Your task to perform on an android device: Clear the shopping cart on bestbuy.com. Search for razer thresher on bestbuy.com, select the first entry, and add it to the cart. Image 0: 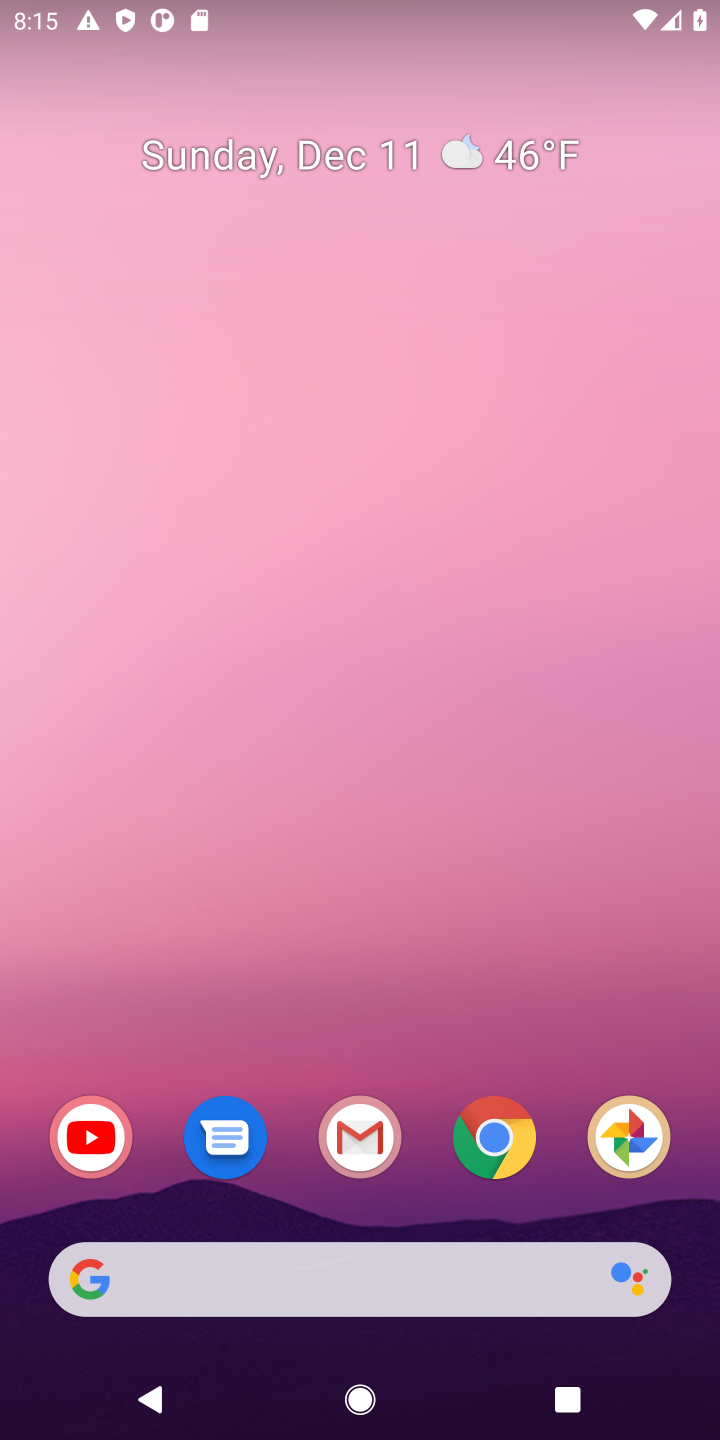
Step 0: click (479, 1148)
Your task to perform on an android device: Clear the shopping cart on bestbuy.com. Search for razer thresher on bestbuy.com, select the first entry, and add it to the cart. Image 1: 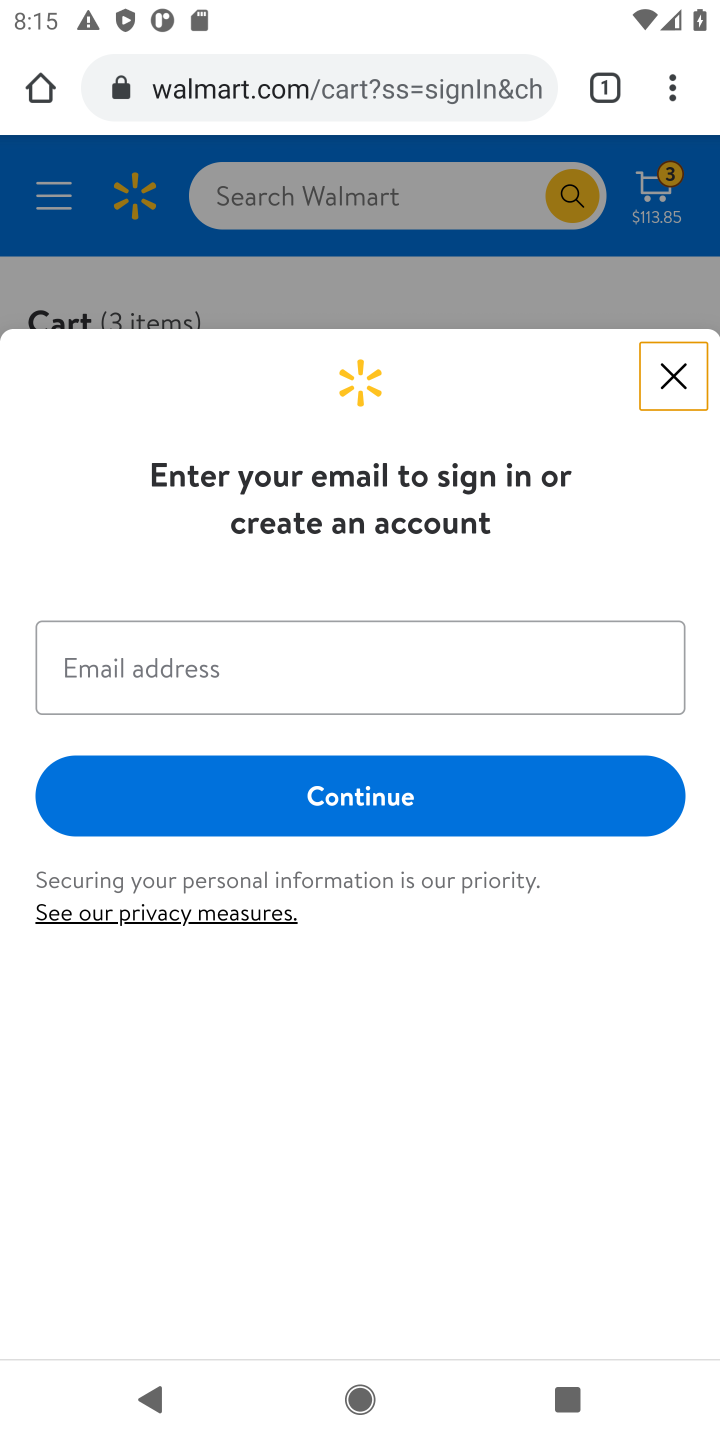
Step 1: click (667, 371)
Your task to perform on an android device: Clear the shopping cart on bestbuy.com. Search for razer thresher on bestbuy.com, select the first entry, and add it to the cart. Image 2: 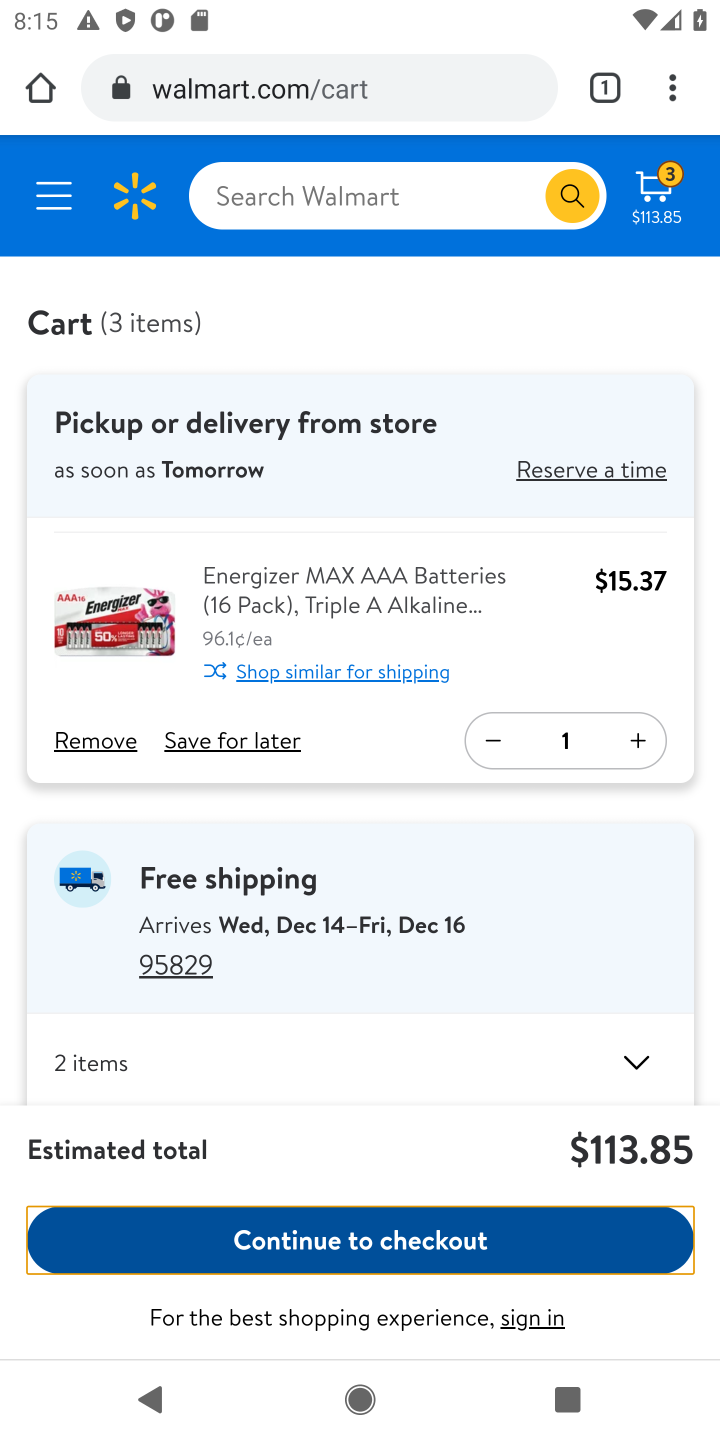
Step 2: click (309, 89)
Your task to perform on an android device: Clear the shopping cart on bestbuy.com. Search for razer thresher on bestbuy.com, select the first entry, and add it to the cart. Image 3: 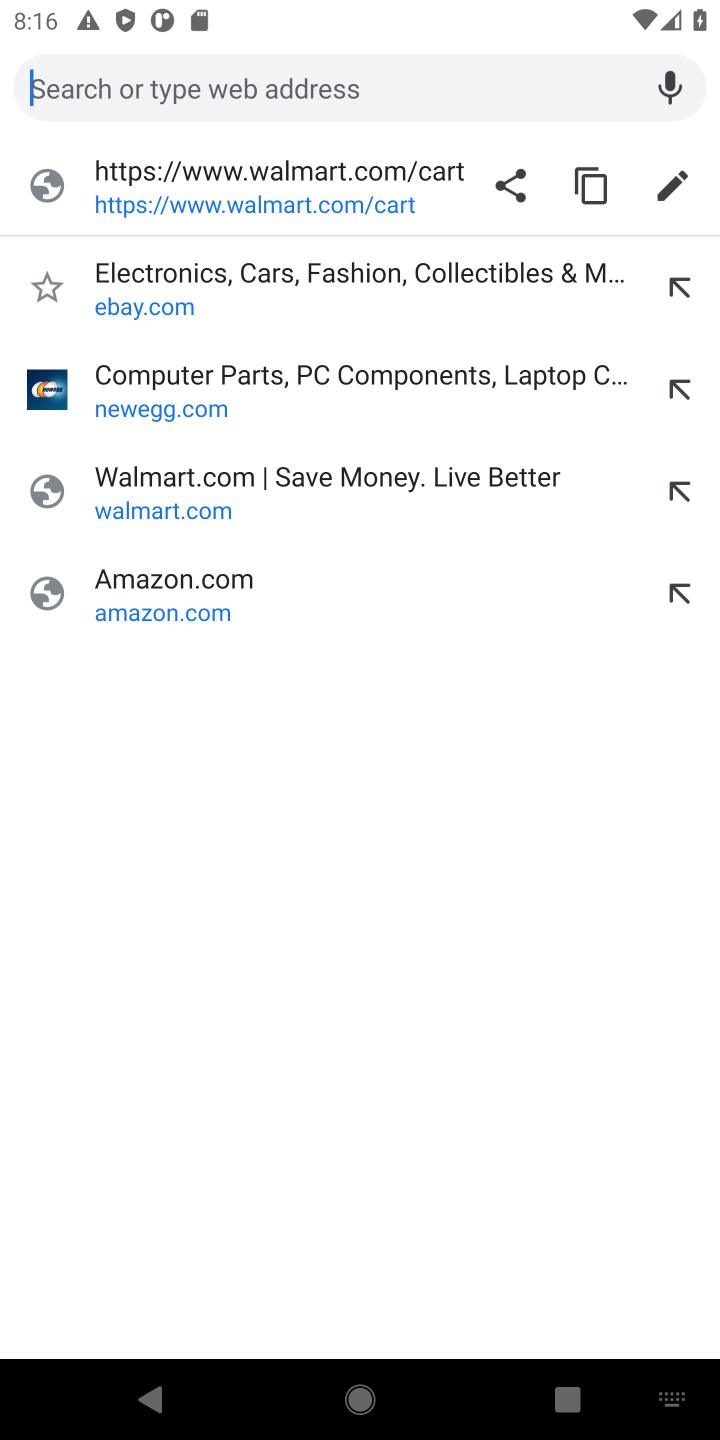
Step 3: type "BESTBUY"
Your task to perform on an android device: Clear the shopping cart on bestbuy.com. Search for razer thresher on bestbuy.com, select the first entry, and add it to the cart. Image 4: 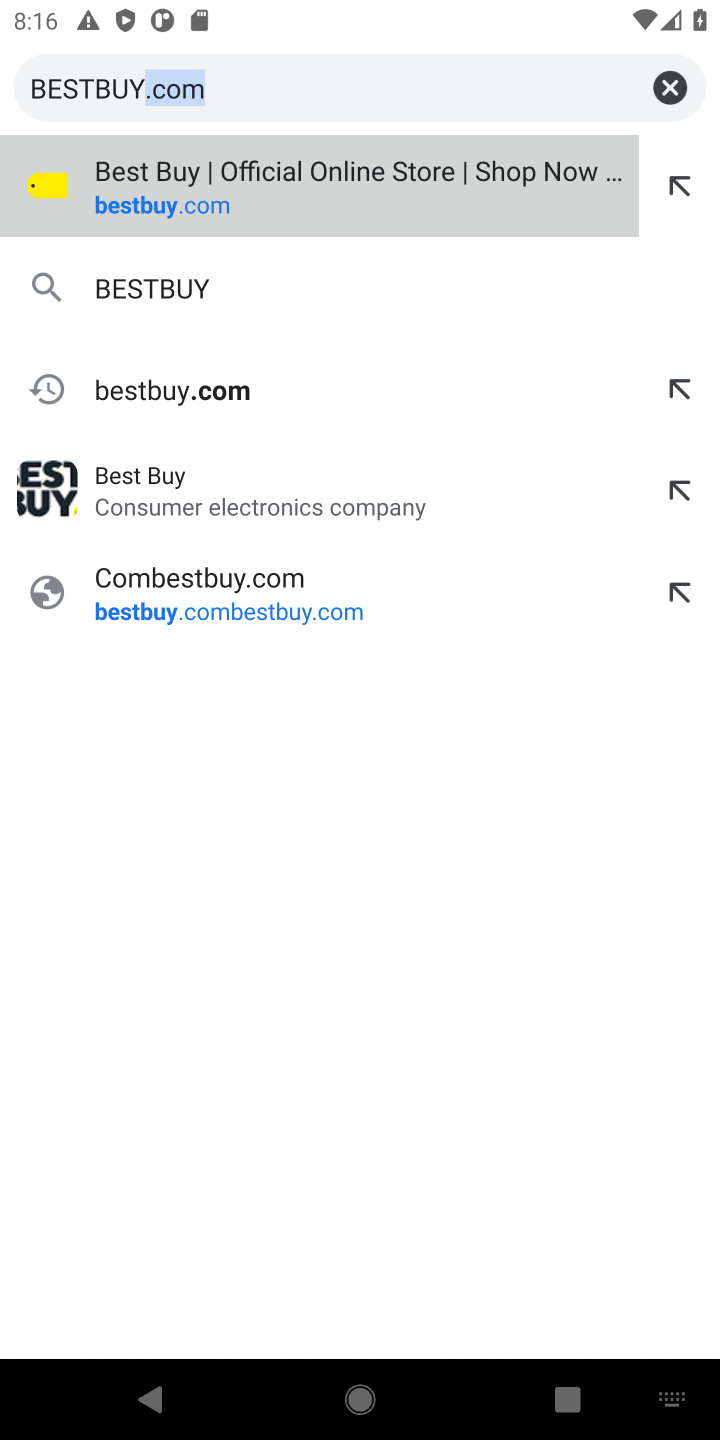
Step 4: click (339, 181)
Your task to perform on an android device: Clear the shopping cart on bestbuy.com. Search for razer thresher on bestbuy.com, select the first entry, and add it to the cart. Image 5: 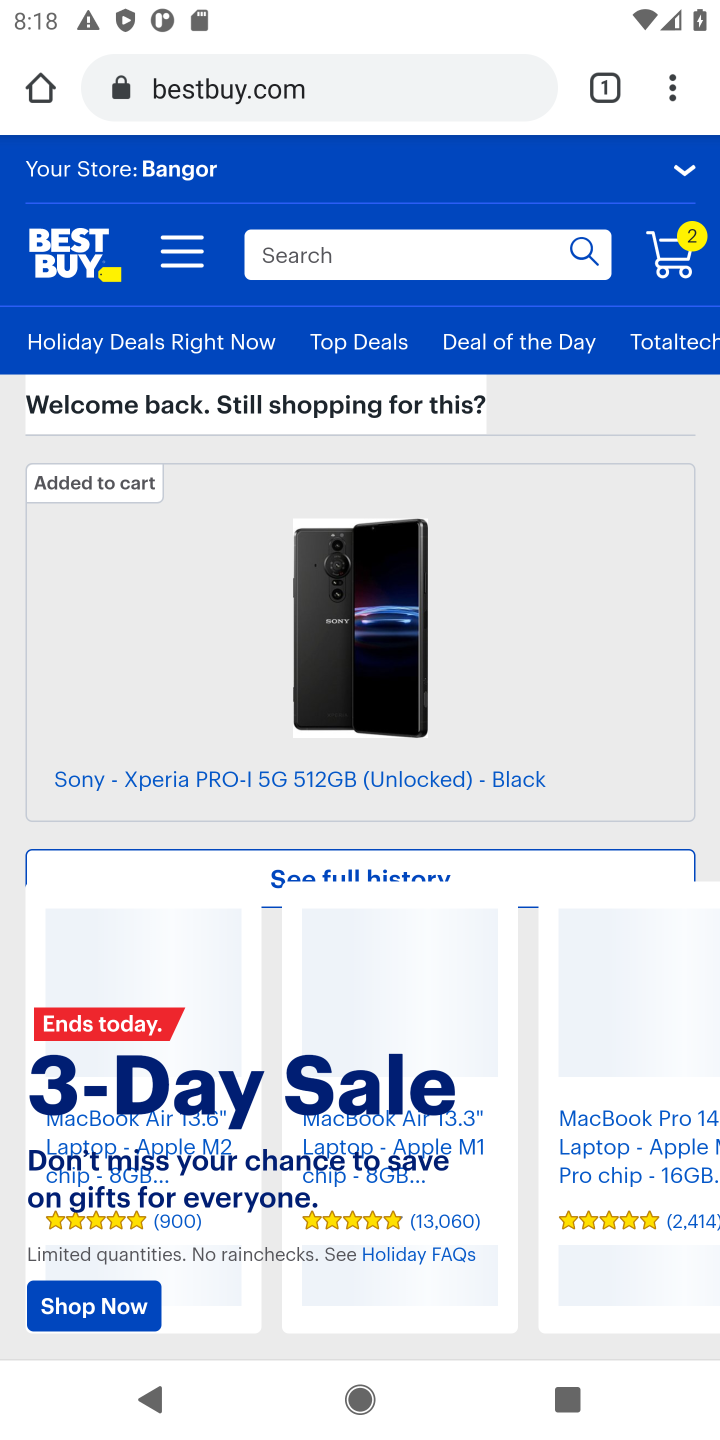
Step 5: click (669, 258)
Your task to perform on an android device: Clear the shopping cart on bestbuy.com. Search for razer thresher on bestbuy.com, select the first entry, and add it to the cart. Image 6: 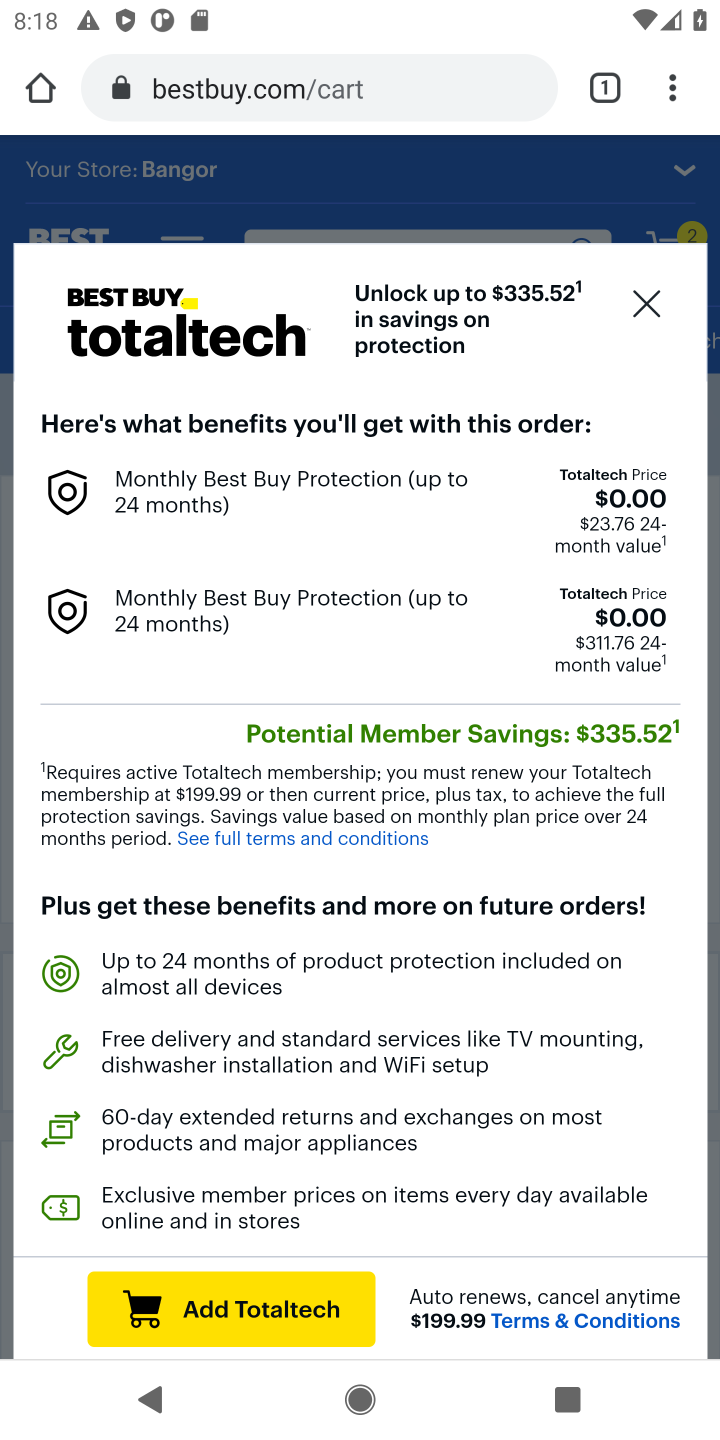
Step 6: click (652, 297)
Your task to perform on an android device: Clear the shopping cart on bestbuy.com. Search for razer thresher on bestbuy.com, select the first entry, and add it to the cart. Image 7: 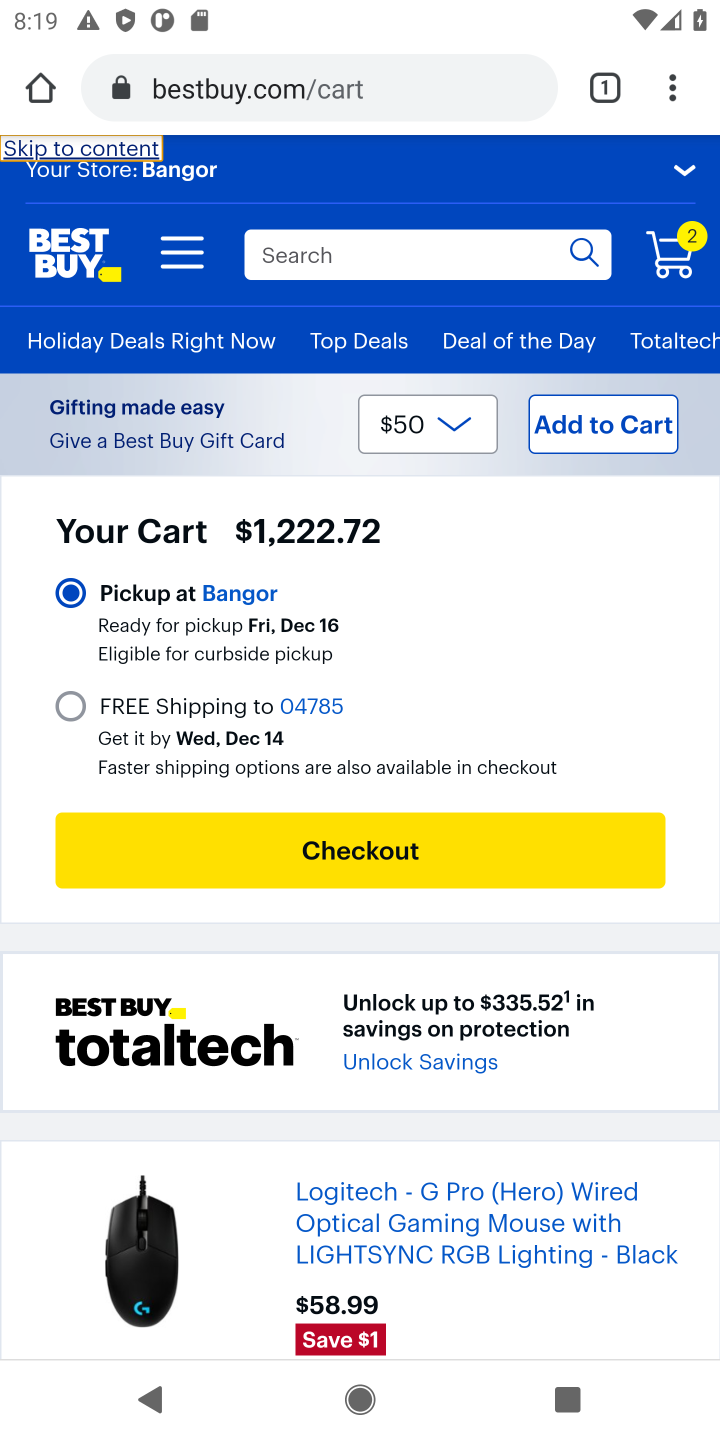
Step 7: drag from (556, 1245) to (483, 309)
Your task to perform on an android device: Clear the shopping cart on bestbuy.com. Search for razer thresher on bestbuy.com, select the first entry, and add it to the cart. Image 8: 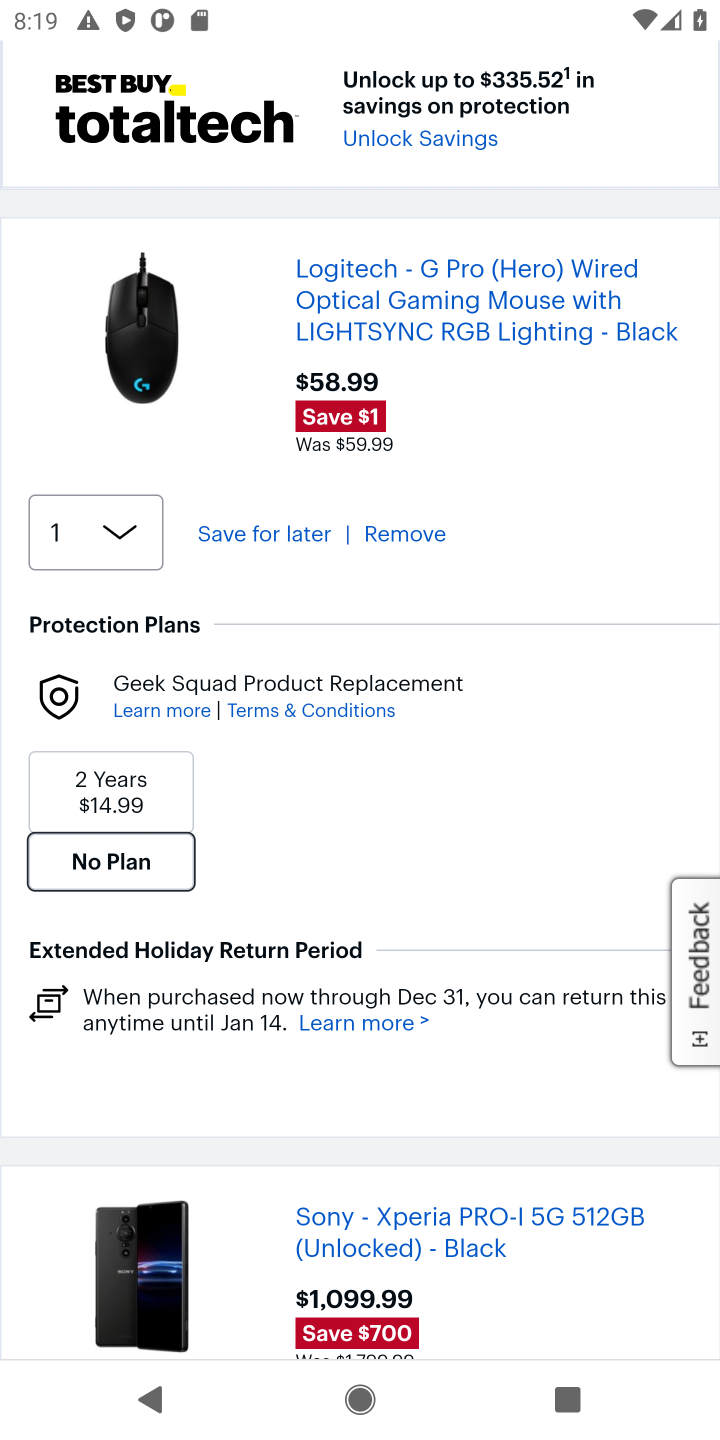
Step 8: click (390, 537)
Your task to perform on an android device: Clear the shopping cart on bestbuy.com. Search for razer thresher on bestbuy.com, select the first entry, and add it to the cart. Image 9: 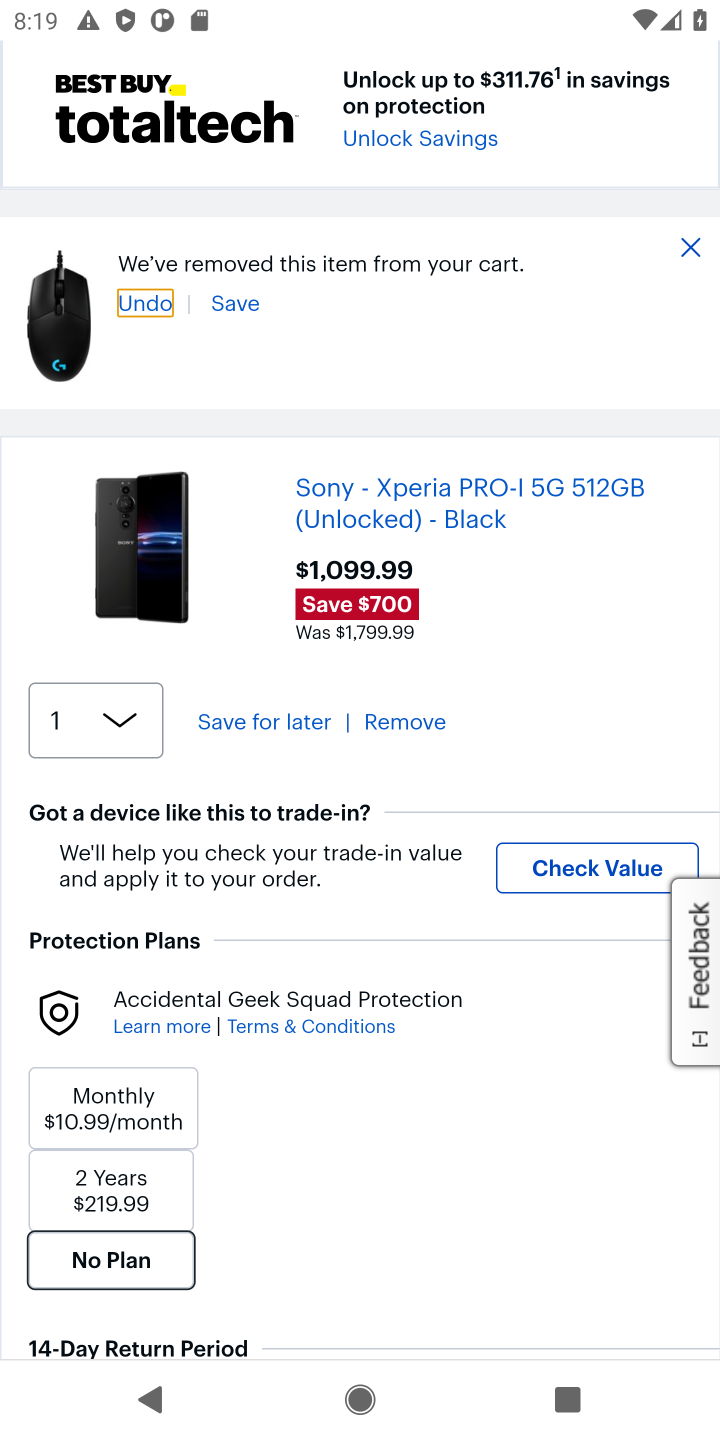
Step 9: click (411, 720)
Your task to perform on an android device: Clear the shopping cart on bestbuy.com. Search for razer thresher on bestbuy.com, select the first entry, and add it to the cart. Image 10: 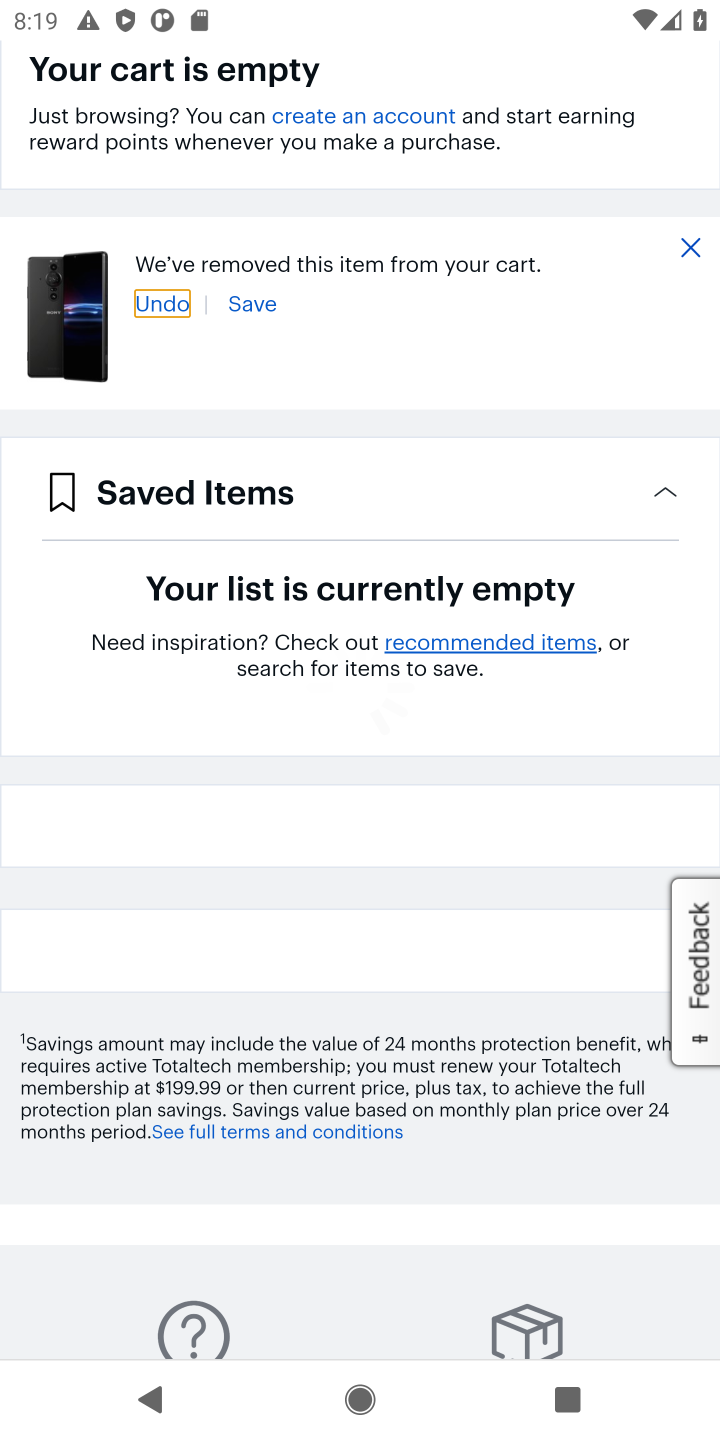
Step 10: drag from (485, 204) to (446, 1278)
Your task to perform on an android device: Clear the shopping cart on bestbuy.com. Search for razer thresher on bestbuy.com, select the first entry, and add it to the cart. Image 11: 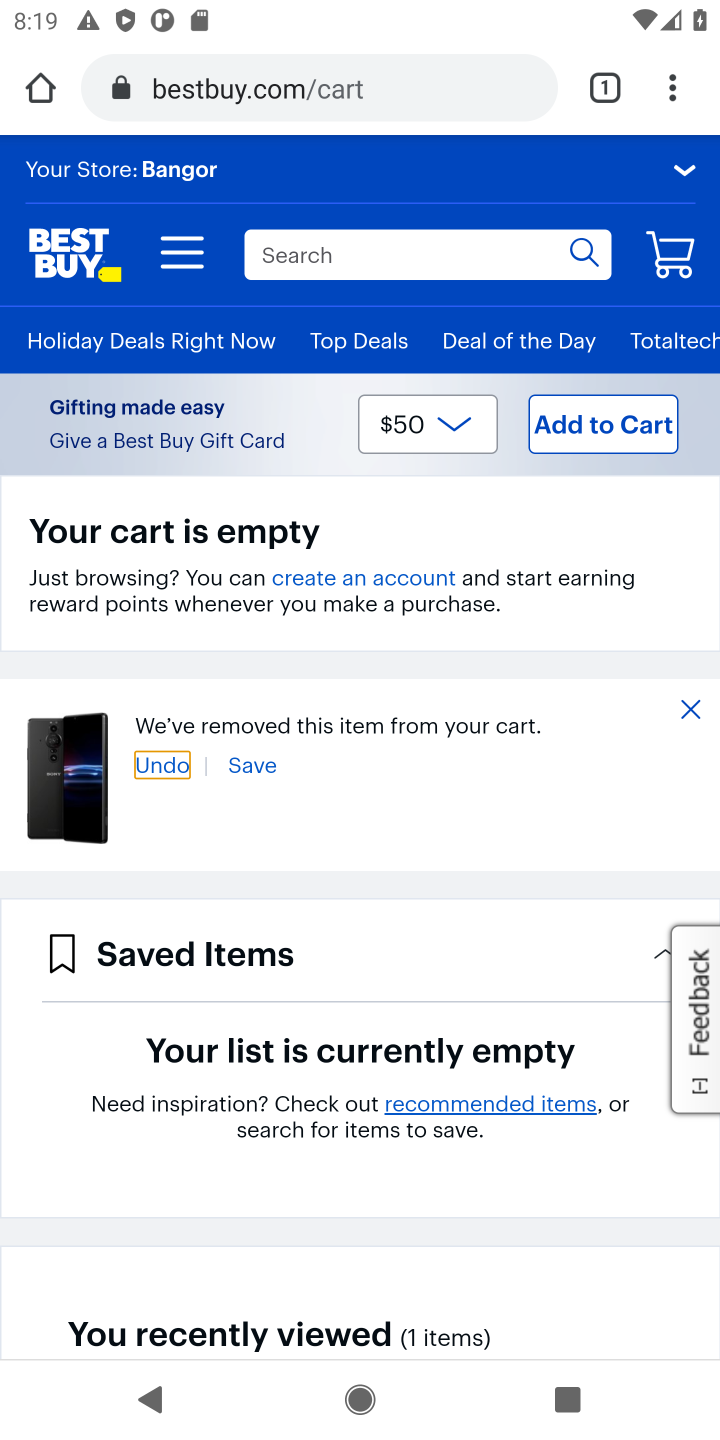
Step 11: click (367, 247)
Your task to perform on an android device: Clear the shopping cart on bestbuy.com. Search for razer thresher on bestbuy.com, select the first entry, and add it to the cart. Image 12: 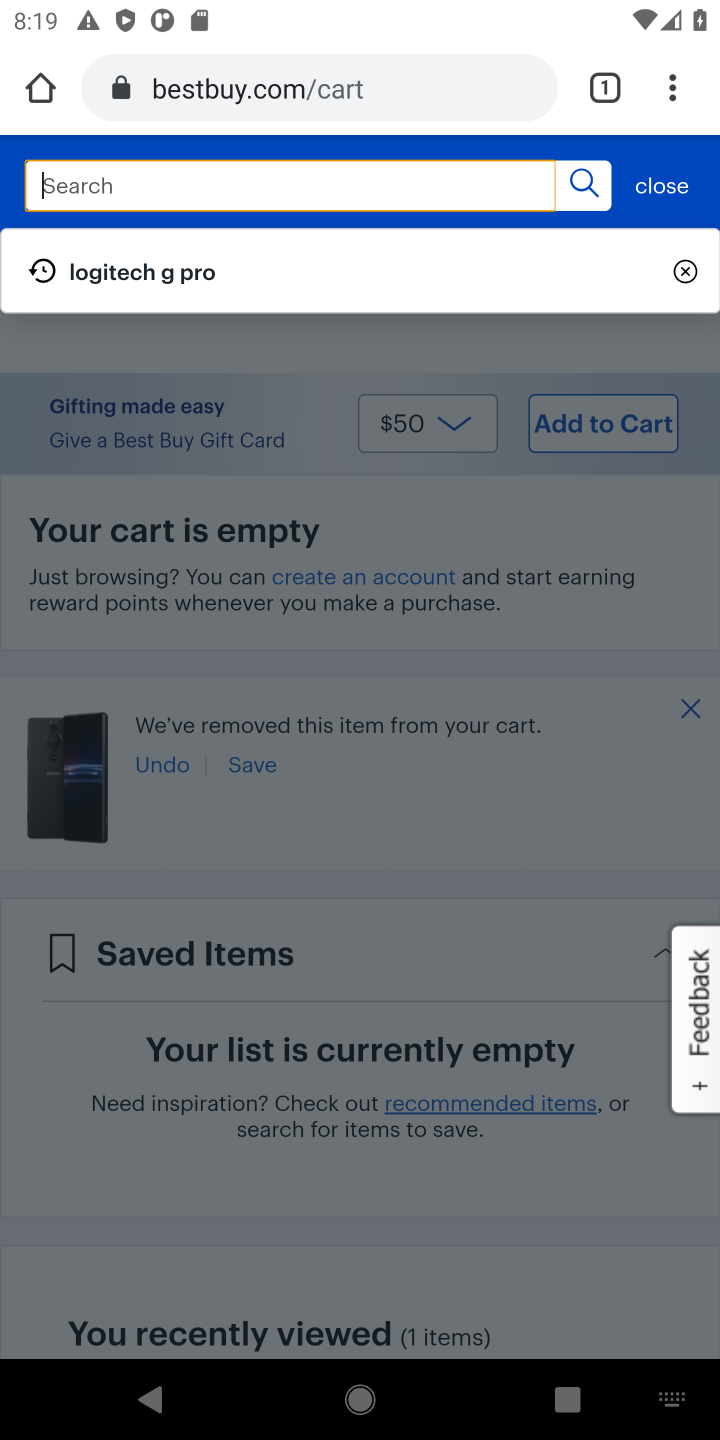
Step 12: type "razer thresher"
Your task to perform on an android device: Clear the shopping cart on bestbuy.com. Search for razer thresher on bestbuy.com, select the first entry, and add it to the cart. Image 13: 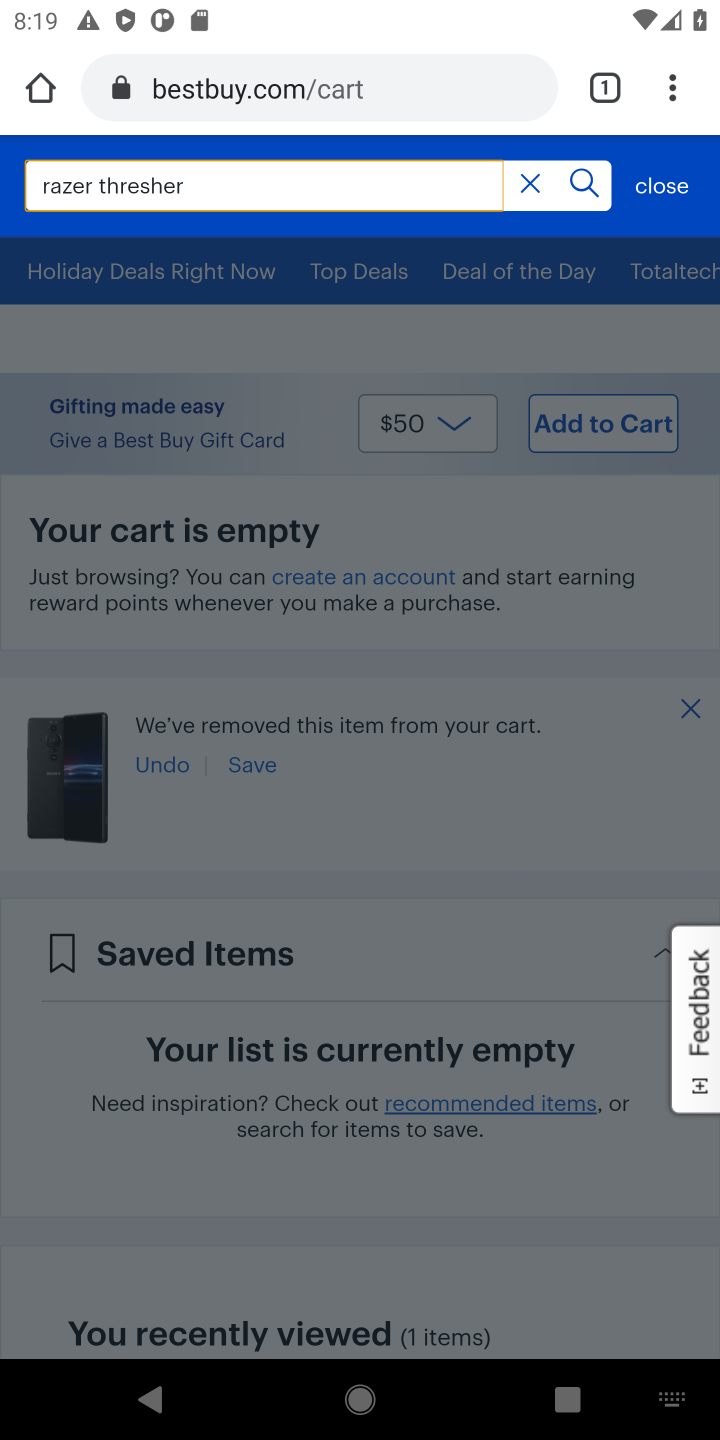
Step 13: click (580, 191)
Your task to perform on an android device: Clear the shopping cart on bestbuy.com. Search for razer thresher on bestbuy.com, select the first entry, and add it to the cart. Image 14: 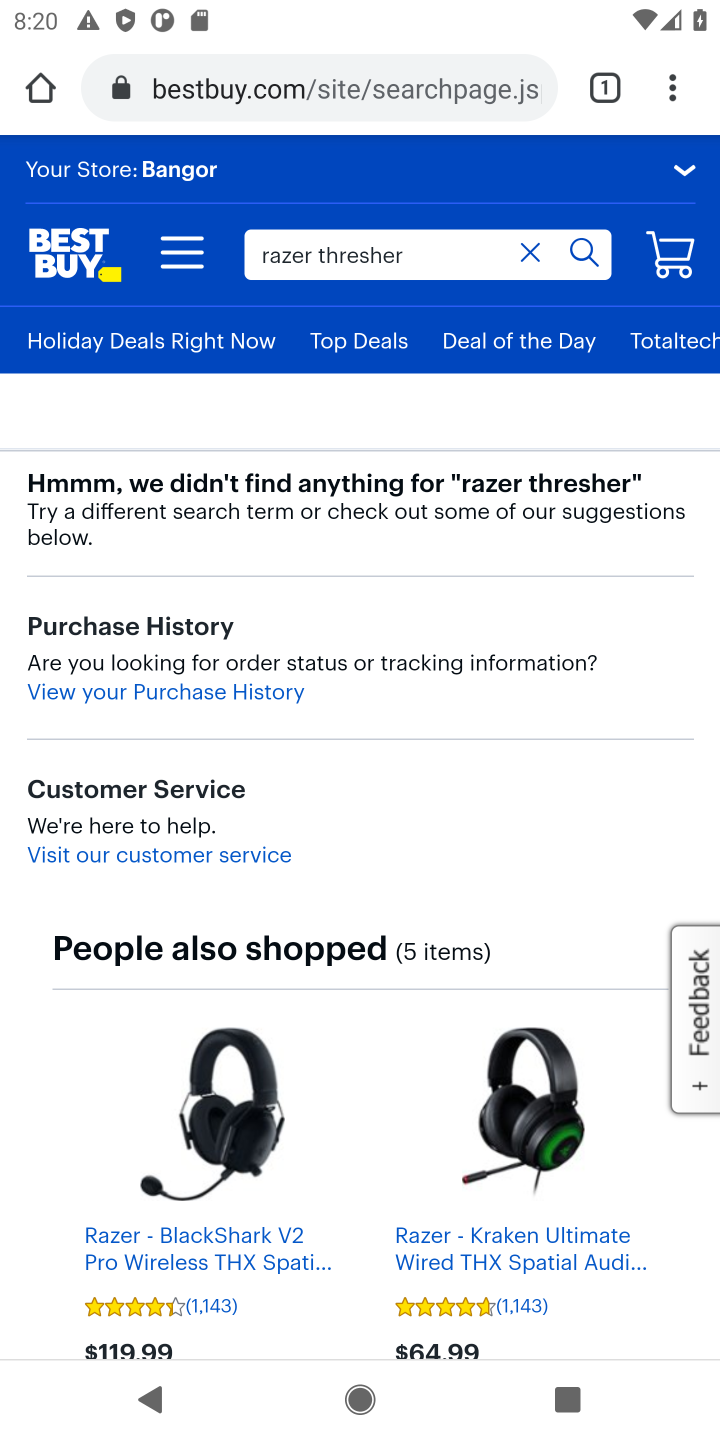
Step 14: click (586, 255)
Your task to perform on an android device: Clear the shopping cart on bestbuy.com. Search for razer thresher on bestbuy.com, select the first entry, and add it to the cart. Image 15: 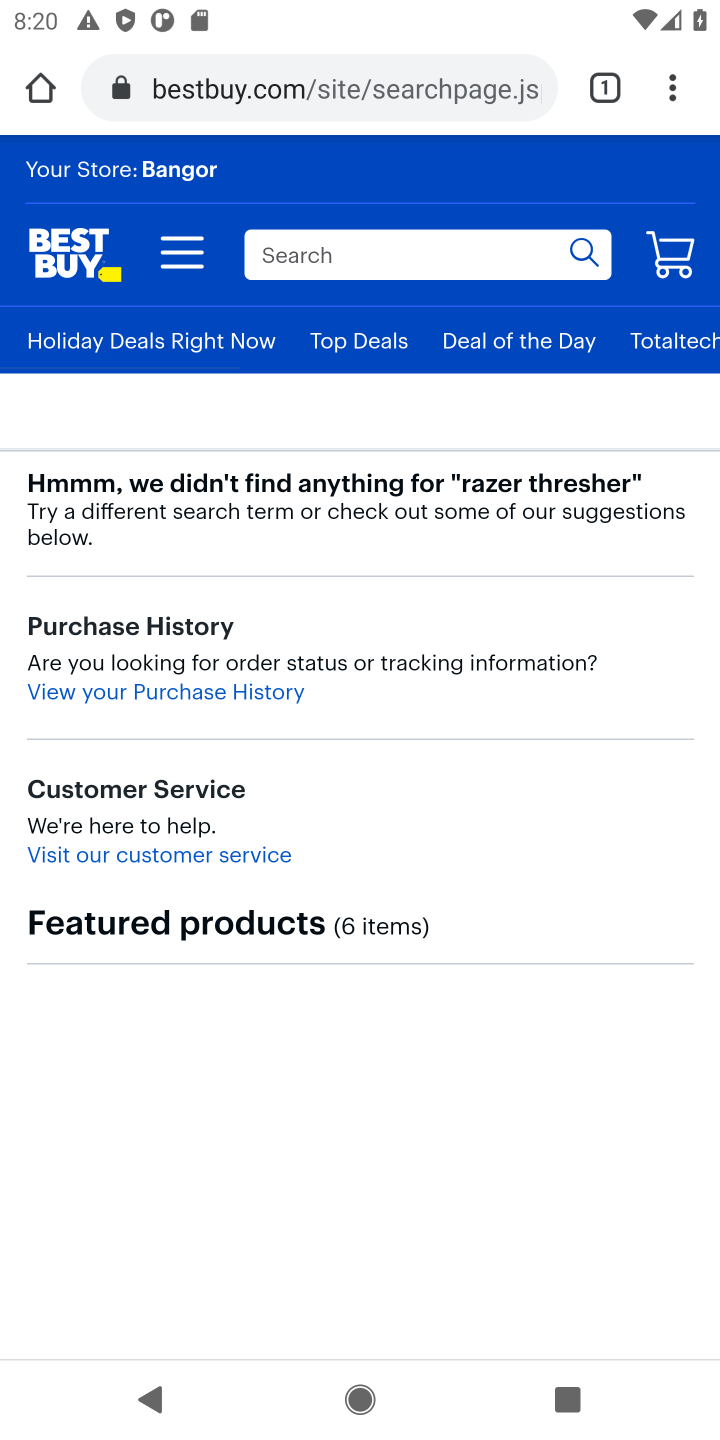
Step 15: task complete